Your task to perform on an android device: toggle priority inbox in the gmail app Image 0: 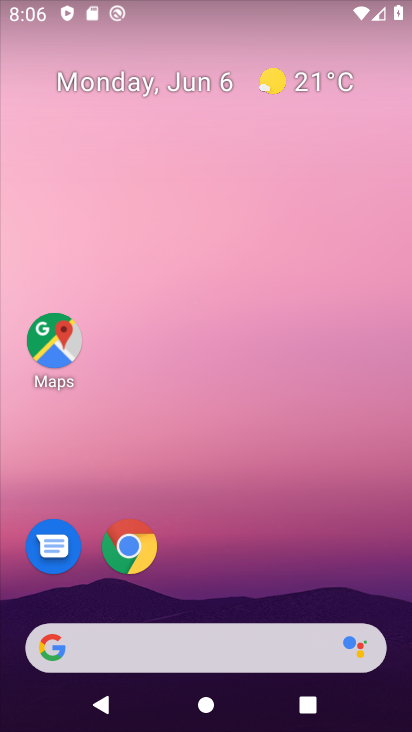
Step 0: drag from (283, 565) to (321, 30)
Your task to perform on an android device: toggle priority inbox in the gmail app Image 1: 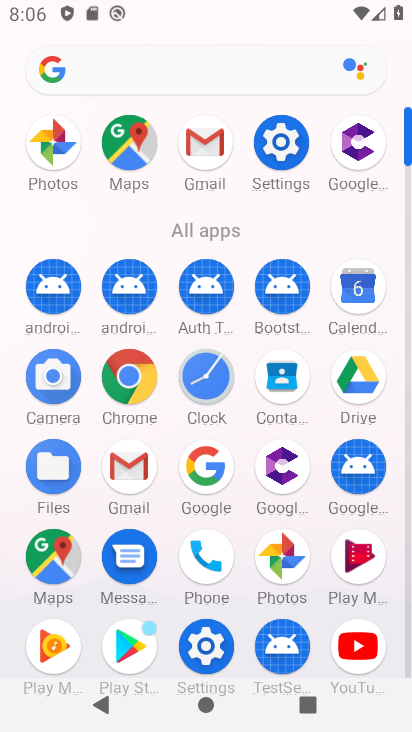
Step 1: click (261, 165)
Your task to perform on an android device: toggle priority inbox in the gmail app Image 2: 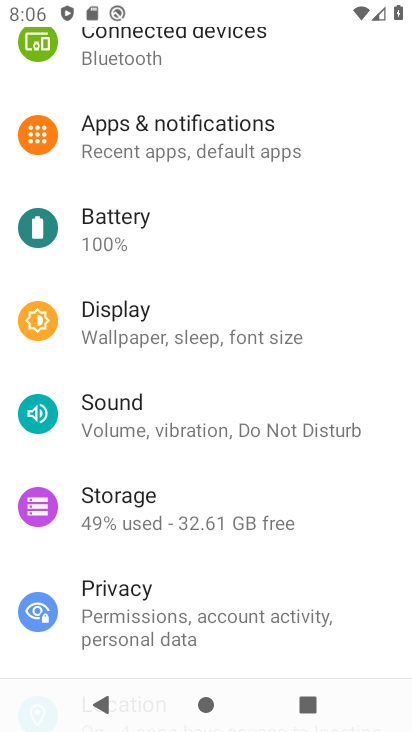
Step 2: press home button
Your task to perform on an android device: toggle priority inbox in the gmail app Image 3: 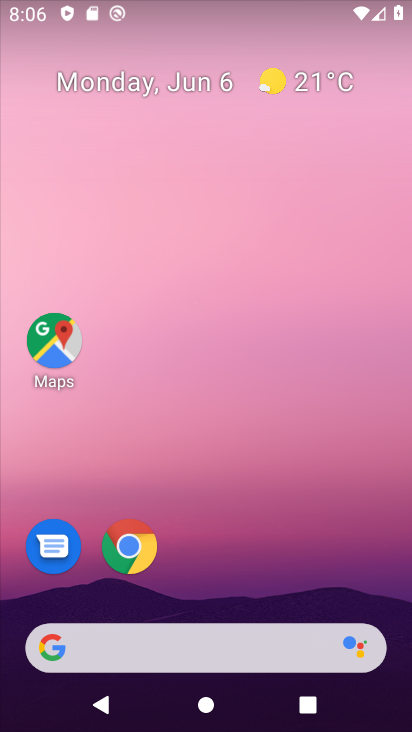
Step 3: drag from (288, 585) to (267, 38)
Your task to perform on an android device: toggle priority inbox in the gmail app Image 4: 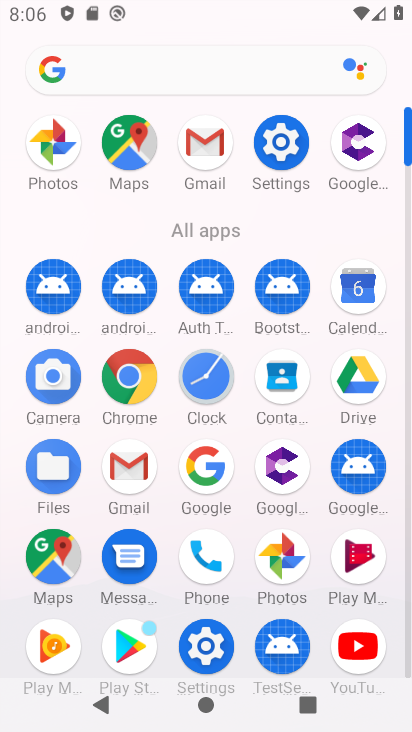
Step 4: click (183, 135)
Your task to perform on an android device: toggle priority inbox in the gmail app Image 5: 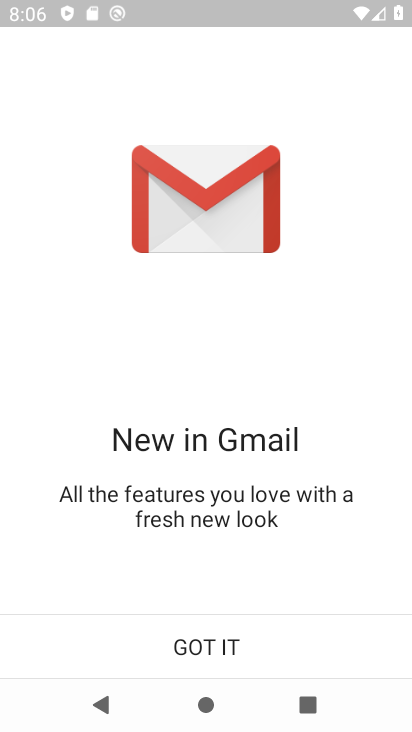
Step 5: click (235, 638)
Your task to perform on an android device: toggle priority inbox in the gmail app Image 6: 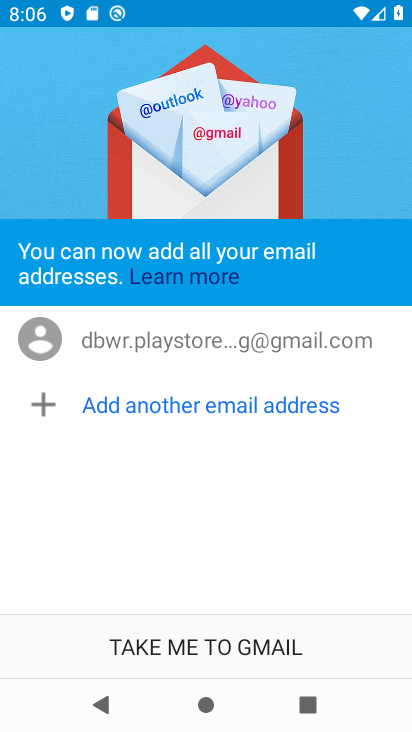
Step 6: click (235, 638)
Your task to perform on an android device: toggle priority inbox in the gmail app Image 7: 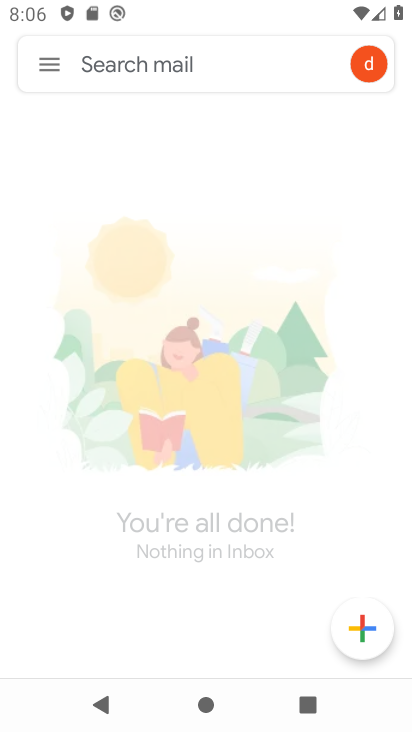
Step 7: task complete